Your task to perform on an android device: Go to Amazon Image 0: 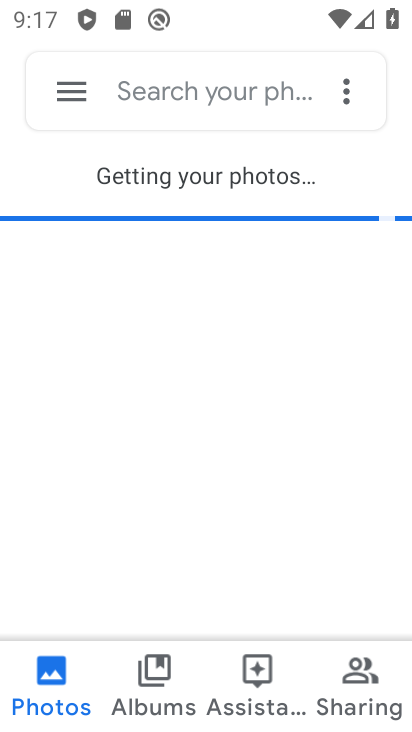
Step 0: press home button
Your task to perform on an android device: Go to Amazon Image 1: 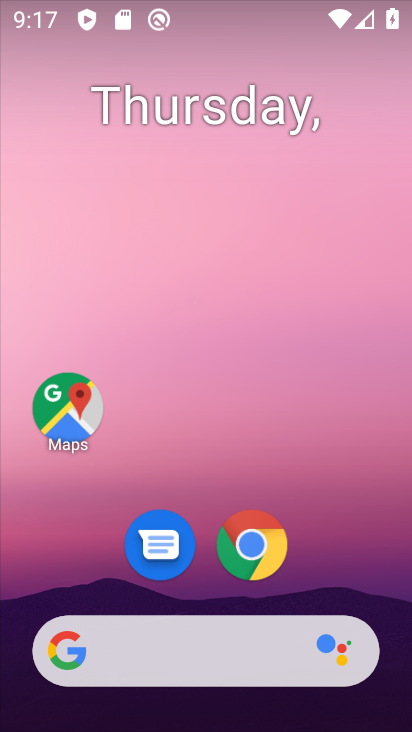
Step 1: click (251, 548)
Your task to perform on an android device: Go to Amazon Image 2: 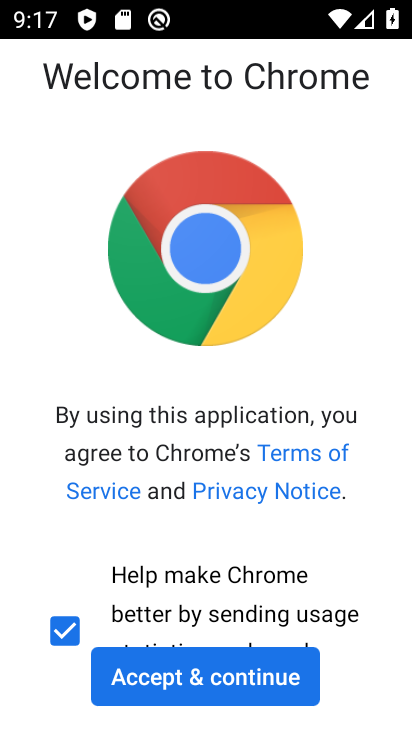
Step 2: click (177, 678)
Your task to perform on an android device: Go to Amazon Image 3: 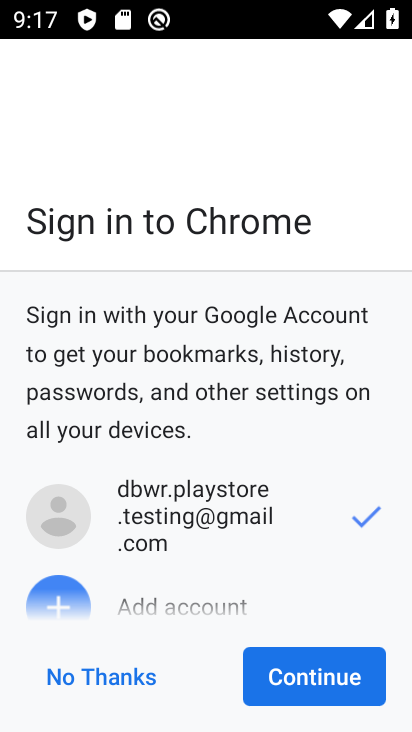
Step 3: click (352, 671)
Your task to perform on an android device: Go to Amazon Image 4: 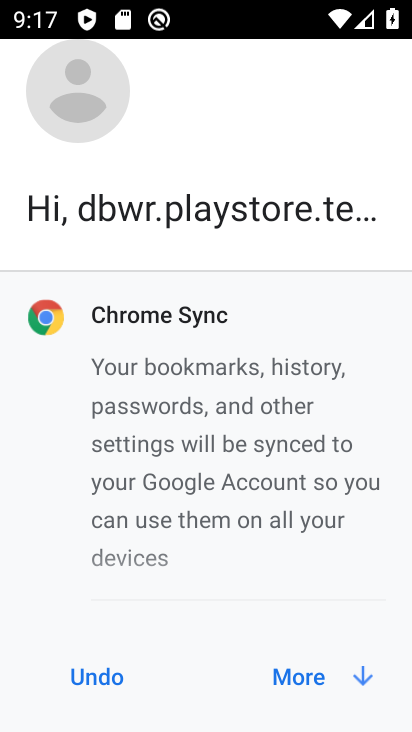
Step 4: click (366, 673)
Your task to perform on an android device: Go to Amazon Image 5: 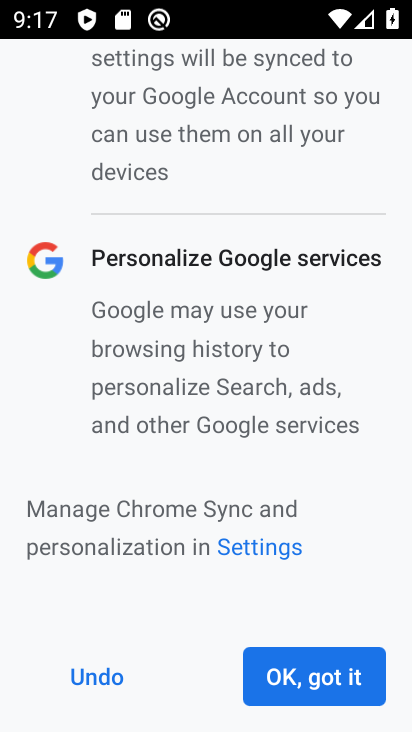
Step 5: click (304, 681)
Your task to perform on an android device: Go to Amazon Image 6: 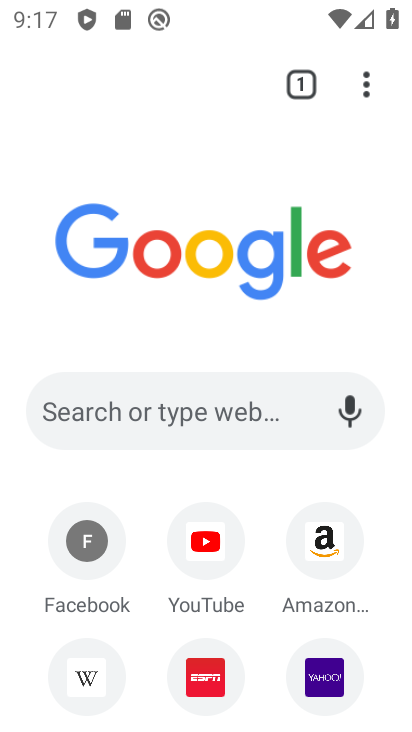
Step 6: click (326, 545)
Your task to perform on an android device: Go to Amazon Image 7: 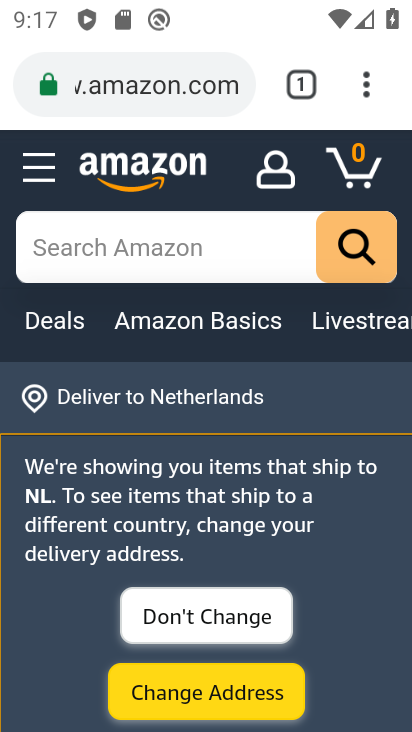
Step 7: task complete